Your task to perform on an android device: Open calendar and show me the second week of next month Image 0: 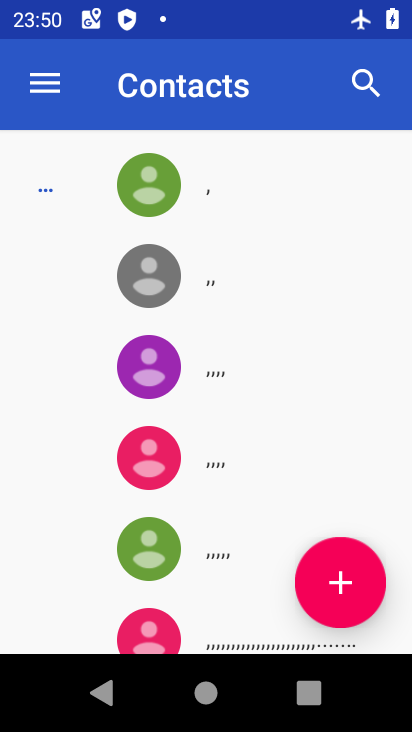
Step 0: press home button
Your task to perform on an android device: Open calendar and show me the second week of next month Image 1: 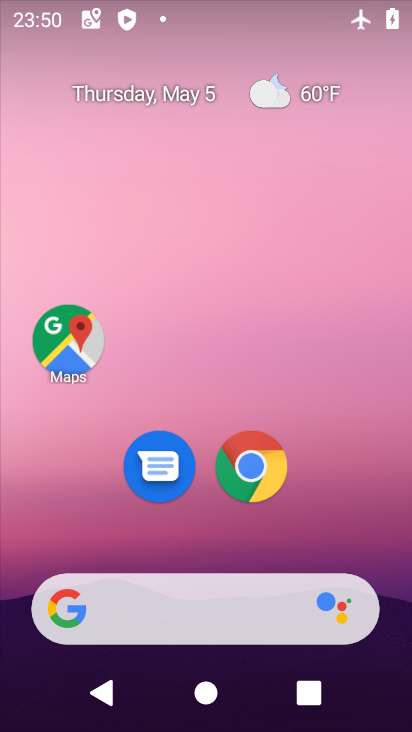
Step 1: drag from (152, 579) to (226, 139)
Your task to perform on an android device: Open calendar and show me the second week of next month Image 2: 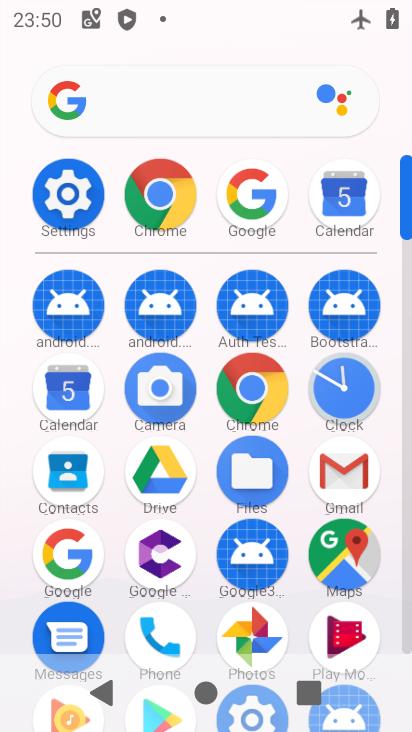
Step 2: click (337, 206)
Your task to perform on an android device: Open calendar and show me the second week of next month Image 3: 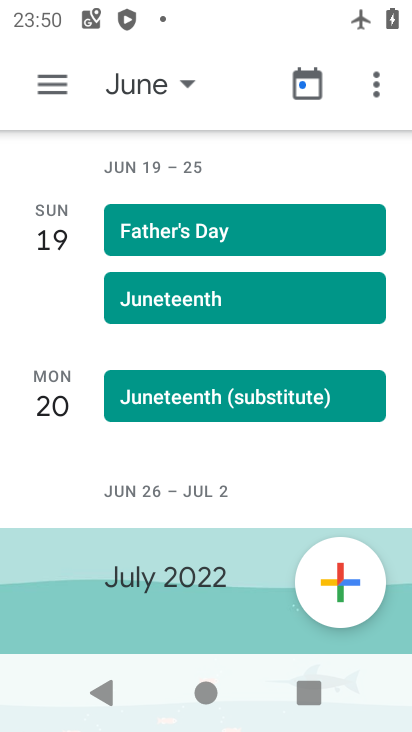
Step 3: click (139, 84)
Your task to perform on an android device: Open calendar and show me the second week of next month Image 4: 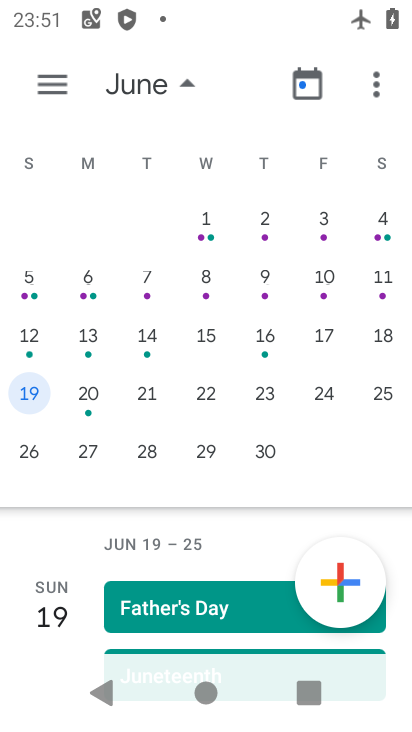
Step 4: click (18, 297)
Your task to perform on an android device: Open calendar and show me the second week of next month Image 5: 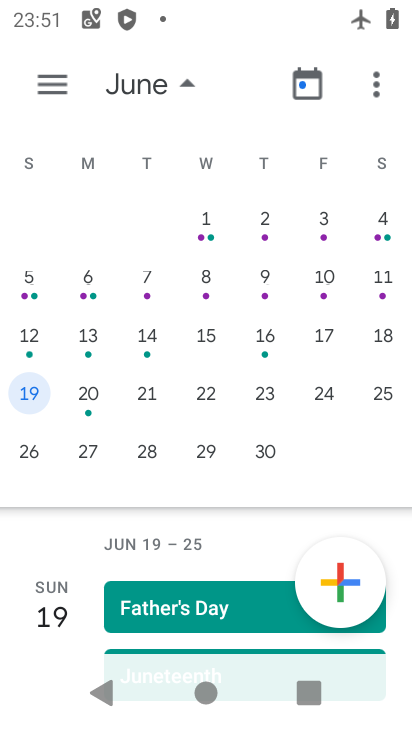
Step 5: click (25, 294)
Your task to perform on an android device: Open calendar and show me the second week of next month Image 6: 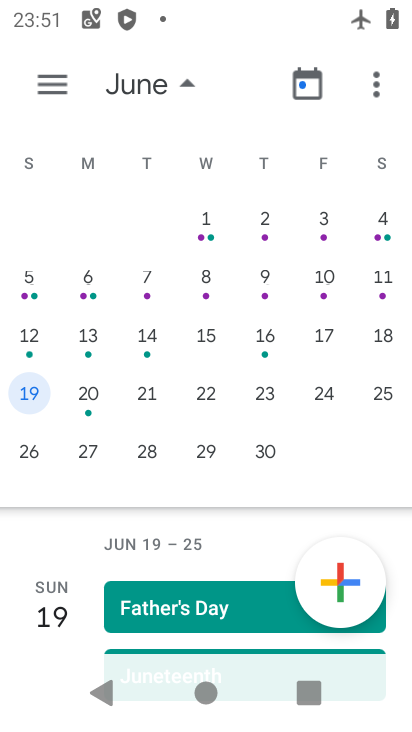
Step 6: click (41, 293)
Your task to perform on an android device: Open calendar and show me the second week of next month Image 7: 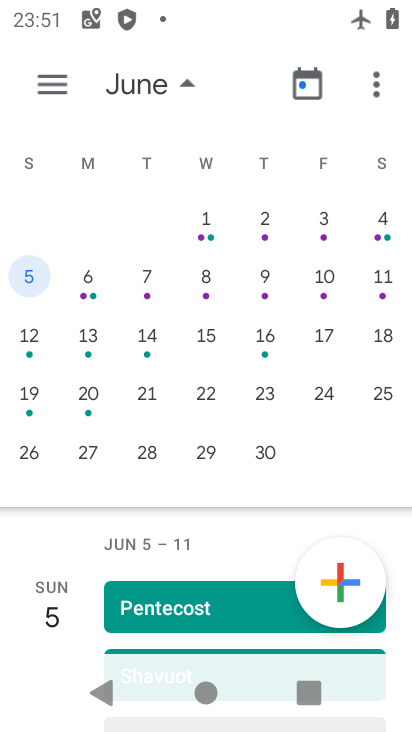
Step 7: task complete